Your task to perform on an android device: turn off improve location accuracy Image 0: 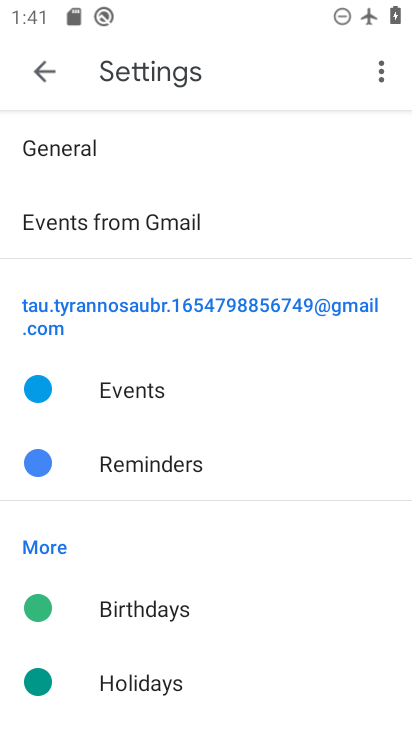
Step 0: press home button
Your task to perform on an android device: turn off improve location accuracy Image 1: 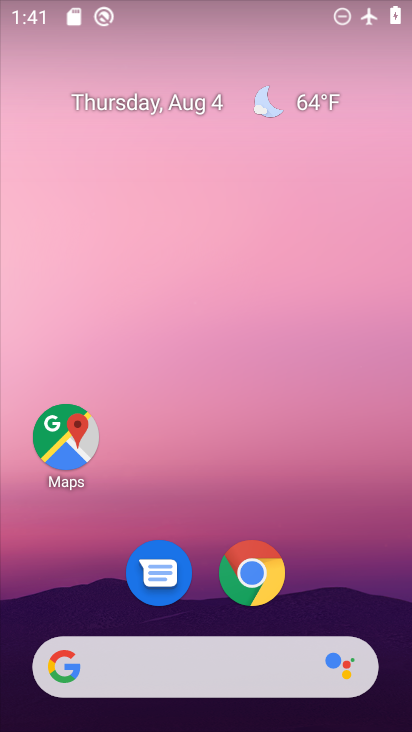
Step 1: drag from (356, 572) to (304, 59)
Your task to perform on an android device: turn off improve location accuracy Image 2: 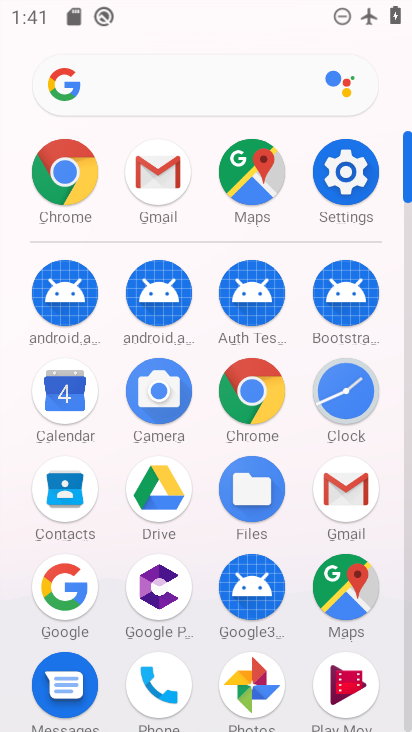
Step 2: click (364, 170)
Your task to perform on an android device: turn off improve location accuracy Image 3: 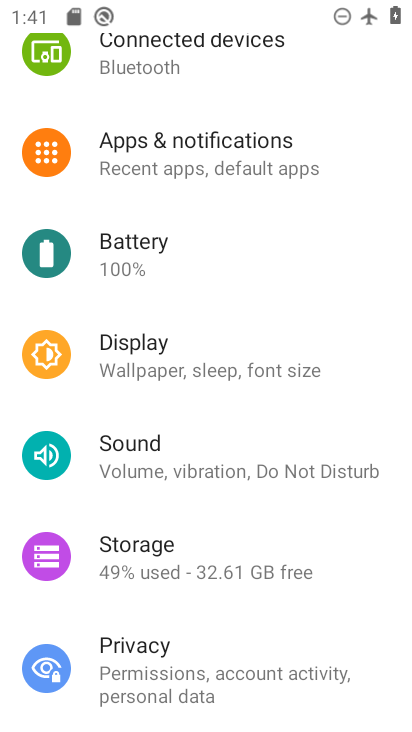
Step 3: drag from (277, 605) to (291, 79)
Your task to perform on an android device: turn off improve location accuracy Image 4: 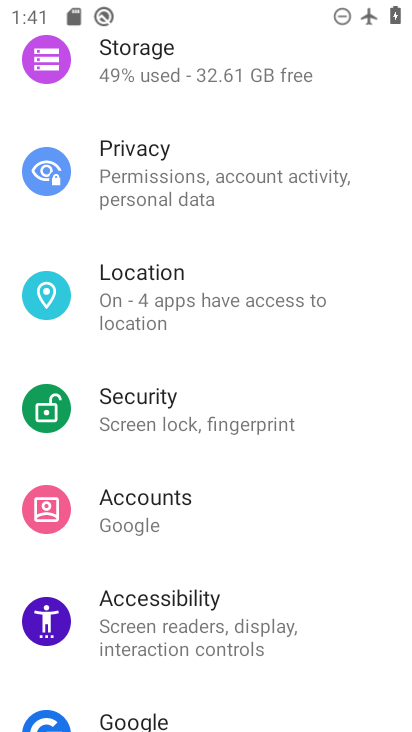
Step 4: click (193, 289)
Your task to perform on an android device: turn off improve location accuracy Image 5: 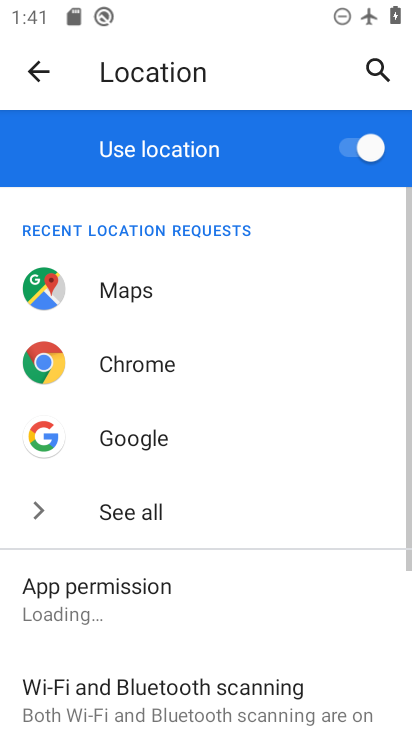
Step 5: drag from (280, 605) to (252, 98)
Your task to perform on an android device: turn off improve location accuracy Image 6: 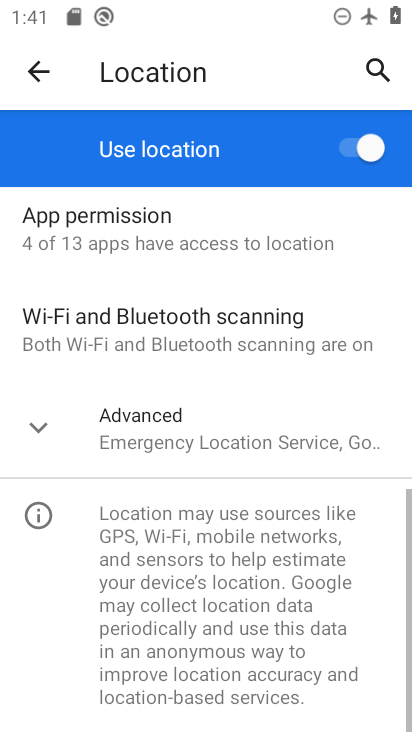
Step 6: click (242, 454)
Your task to perform on an android device: turn off improve location accuracy Image 7: 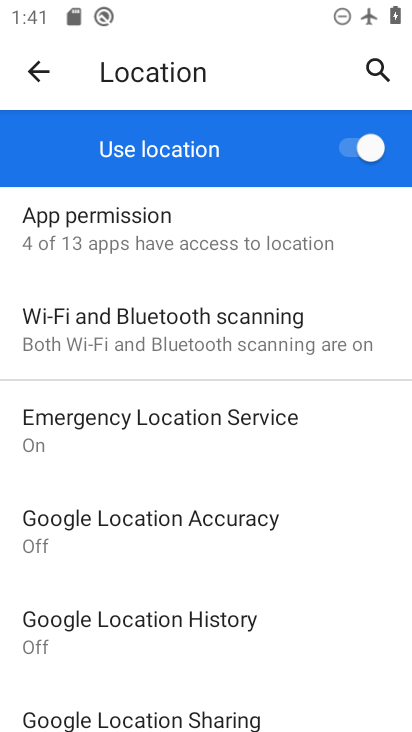
Step 7: click (242, 528)
Your task to perform on an android device: turn off improve location accuracy Image 8: 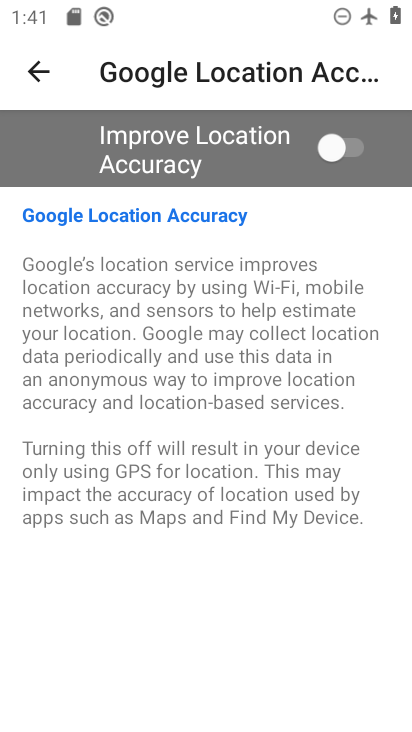
Step 8: task complete